Your task to perform on an android device: Open network settings Image 0: 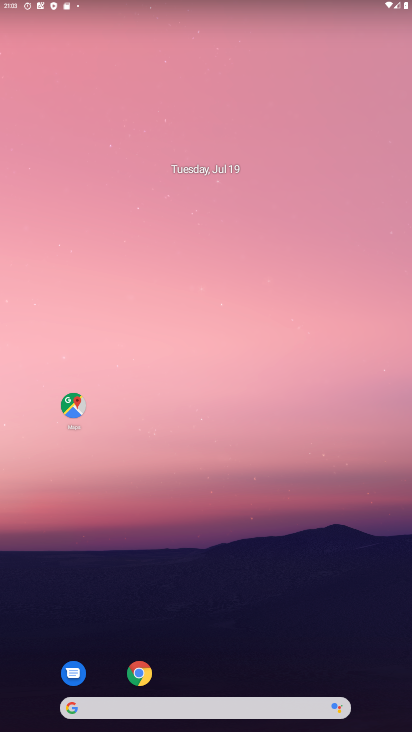
Step 0: click (331, 11)
Your task to perform on an android device: Open network settings Image 1: 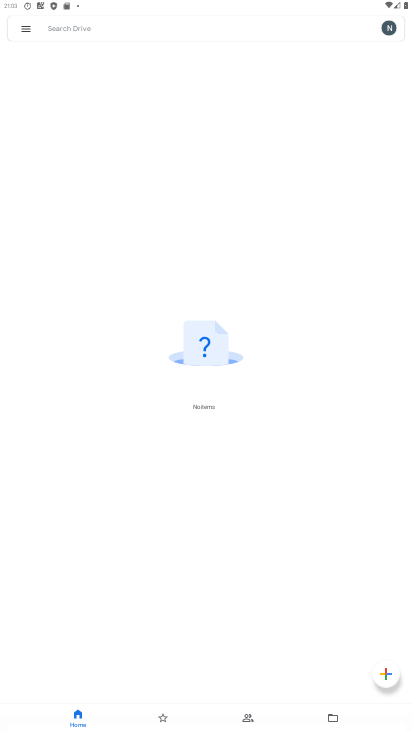
Step 1: press home button
Your task to perform on an android device: Open network settings Image 2: 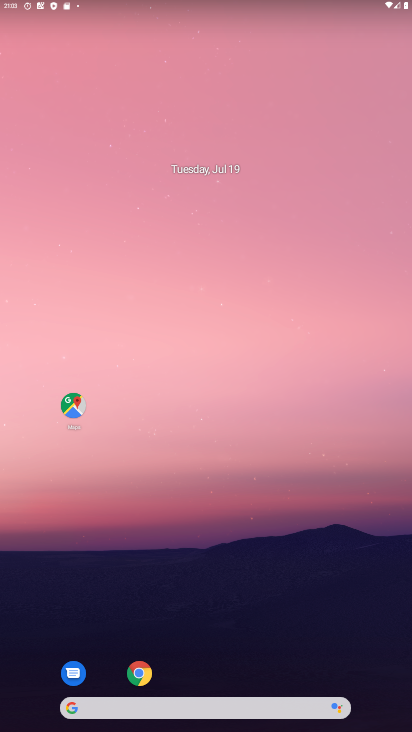
Step 2: drag from (238, 672) to (246, 14)
Your task to perform on an android device: Open network settings Image 3: 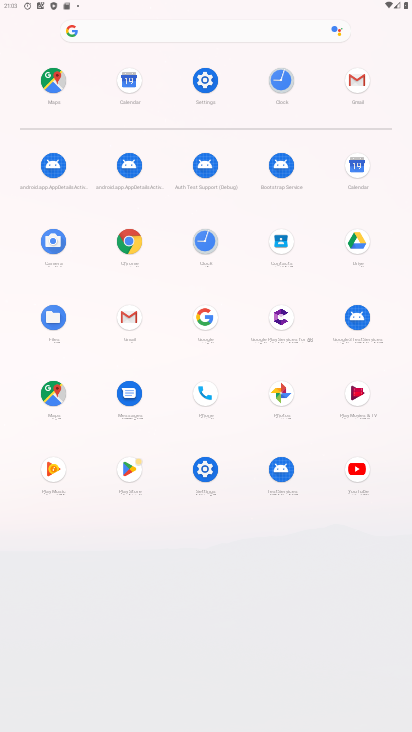
Step 3: click (209, 485)
Your task to perform on an android device: Open network settings Image 4: 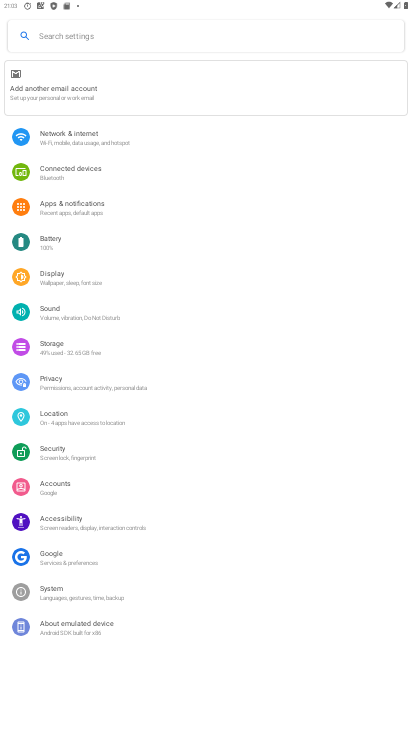
Step 4: click (104, 139)
Your task to perform on an android device: Open network settings Image 5: 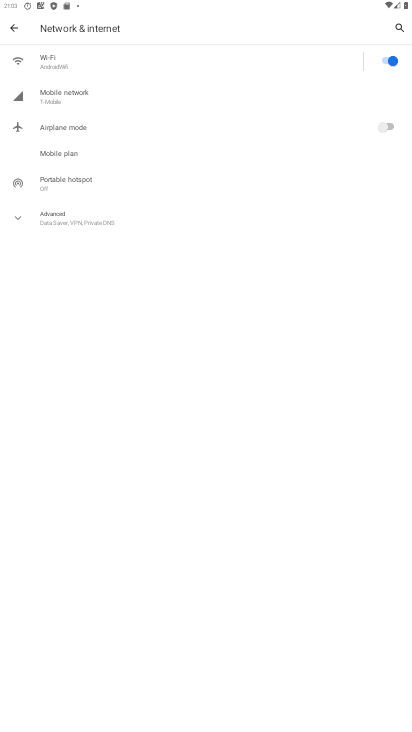
Step 5: task complete